Your task to perform on an android device: set the stopwatch Image 0: 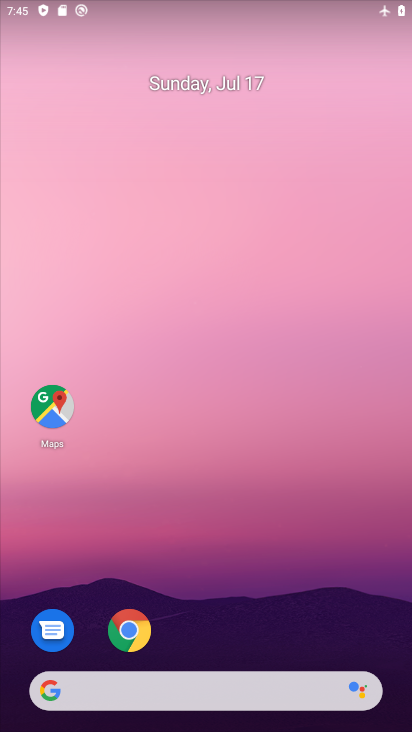
Step 0: drag from (257, 599) to (199, 63)
Your task to perform on an android device: set the stopwatch Image 1: 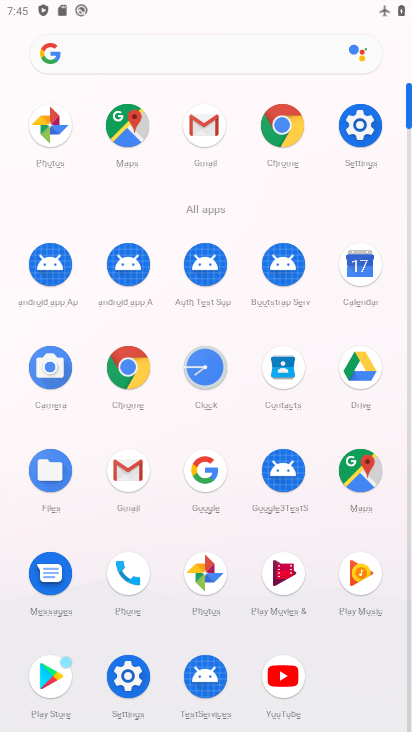
Step 1: click (210, 384)
Your task to perform on an android device: set the stopwatch Image 2: 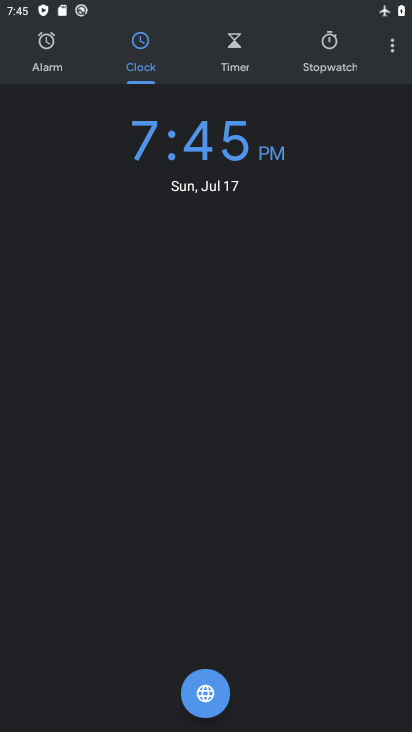
Step 2: click (335, 65)
Your task to perform on an android device: set the stopwatch Image 3: 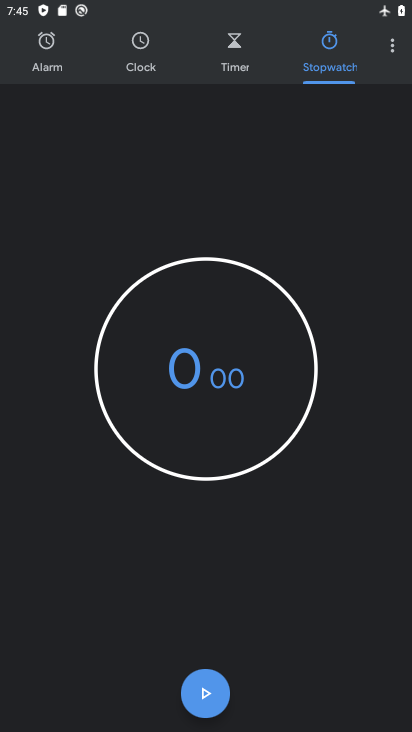
Step 3: click (213, 696)
Your task to perform on an android device: set the stopwatch Image 4: 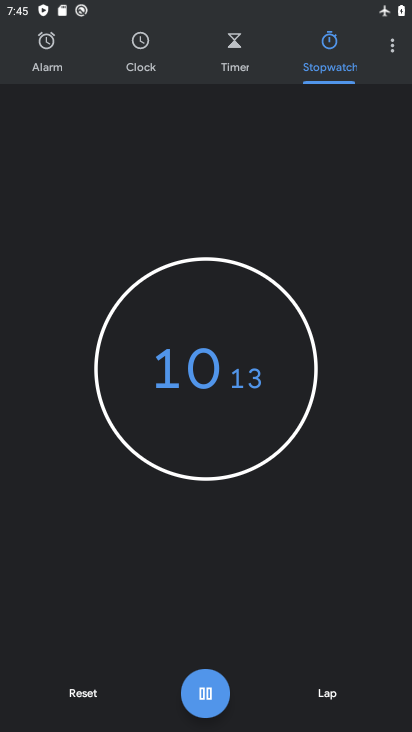
Step 4: task complete